Your task to perform on an android device: change the clock display to digital Image 0: 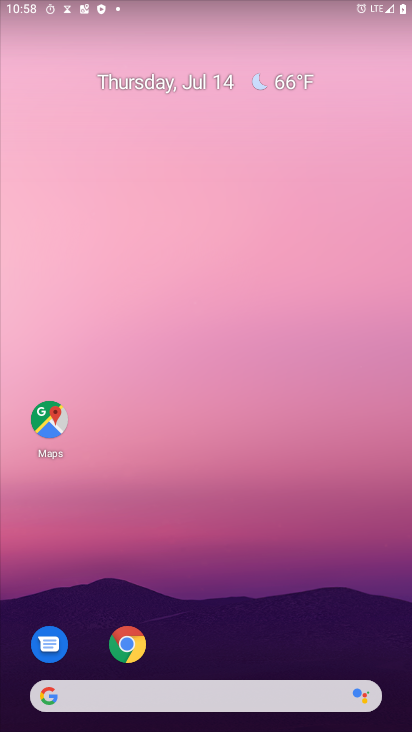
Step 0: drag from (172, 700) to (48, 62)
Your task to perform on an android device: change the clock display to digital Image 1: 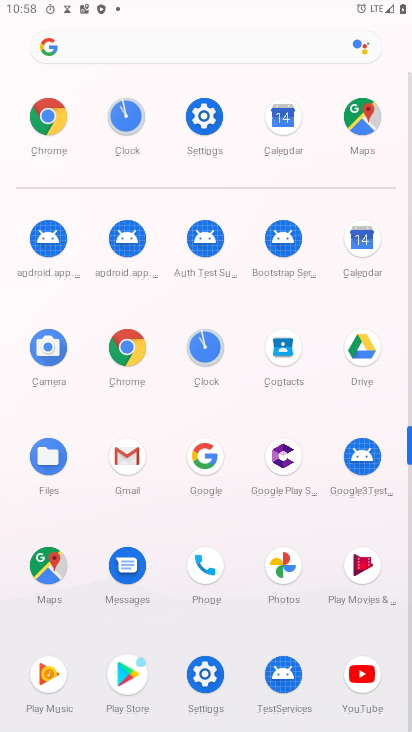
Step 1: click (199, 345)
Your task to perform on an android device: change the clock display to digital Image 2: 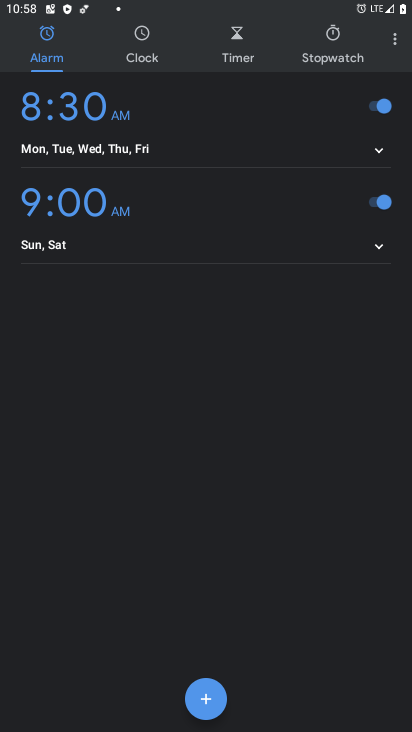
Step 2: click (199, 345)
Your task to perform on an android device: change the clock display to digital Image 3: 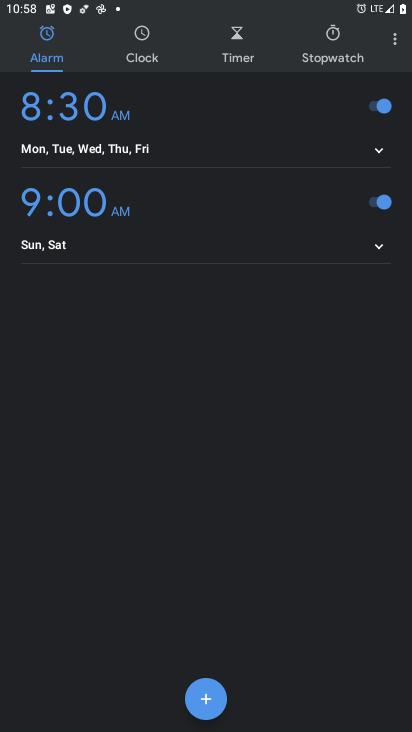
Step 3: click (387, 43)
Your task to perform on an android device: change the clock display to digital Image 4: 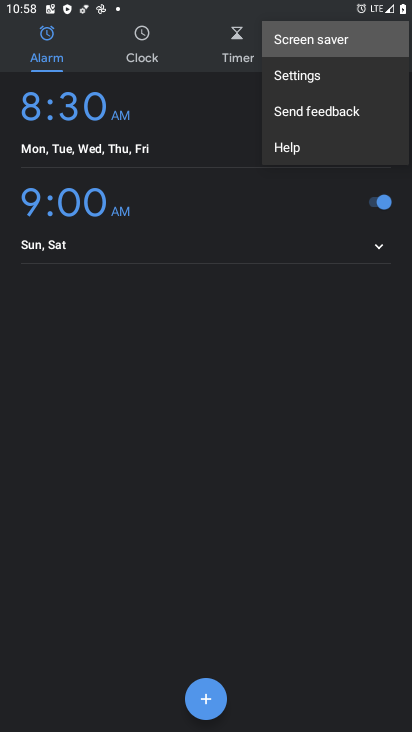
Step 4: click (394, 31)
Your task to perform on an android device: change the clock display to digital Image 5: 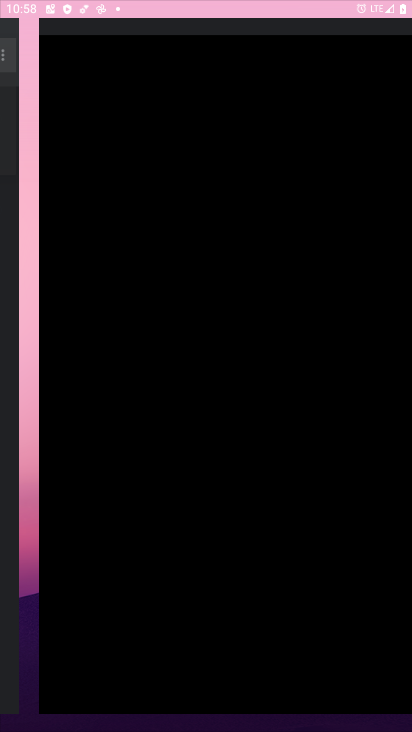
Step 5: click (313, 82)
Your task to perform on an android device: change the clock display to digital Image 6: 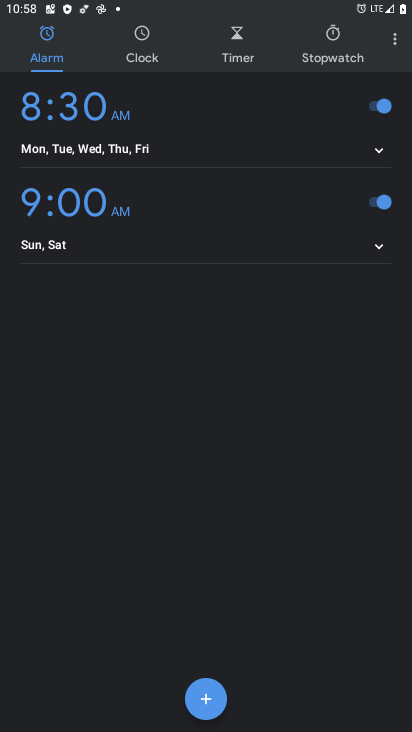
Step 6: drag from (394, 42) to (296, 79)
Your task to perform on an android device: change the clock display to digital Image 7: 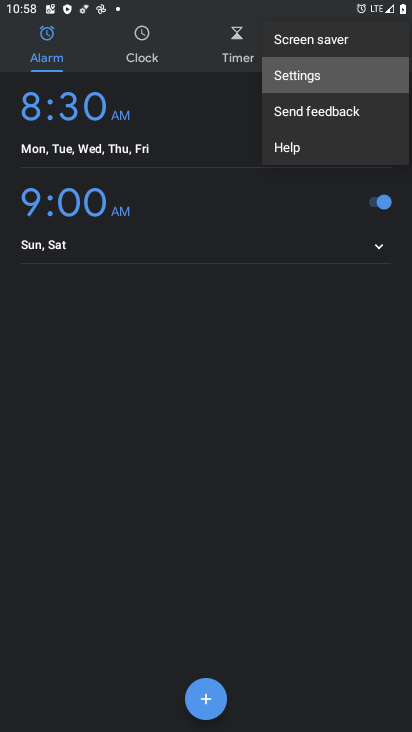
Step 7: click (296, 79)
Your task to perform on an android device: change the clock display to digital Image 8: 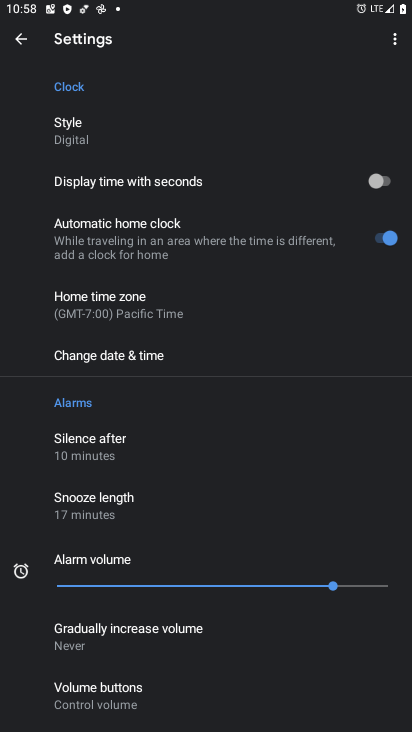
Step 8: task complete